Your task to perform on an android device: Open sound settings Image 0: 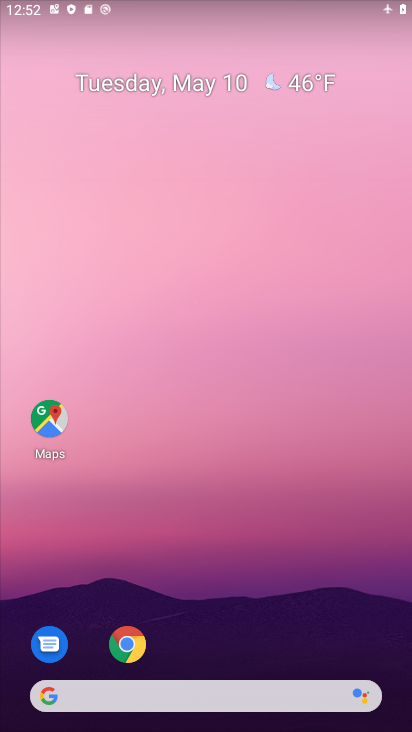
Step 0: drag from (236, 578) to (235, 314)
Your task to perform on an android device: Open sound settings Image 1: 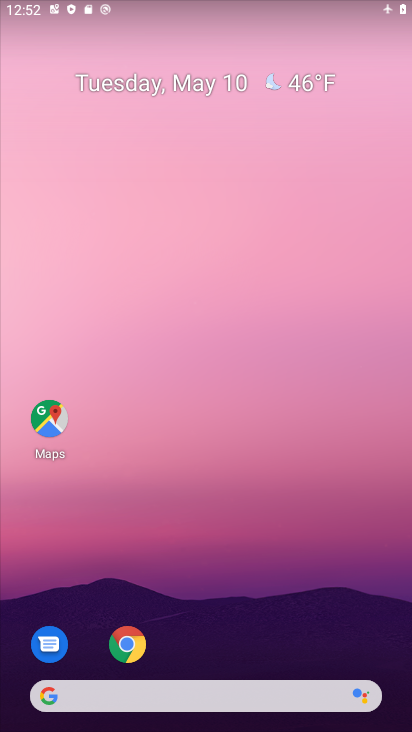
Step 1: click (207, 282)
Your task to perform on an android device: Open sound settings Image 2: 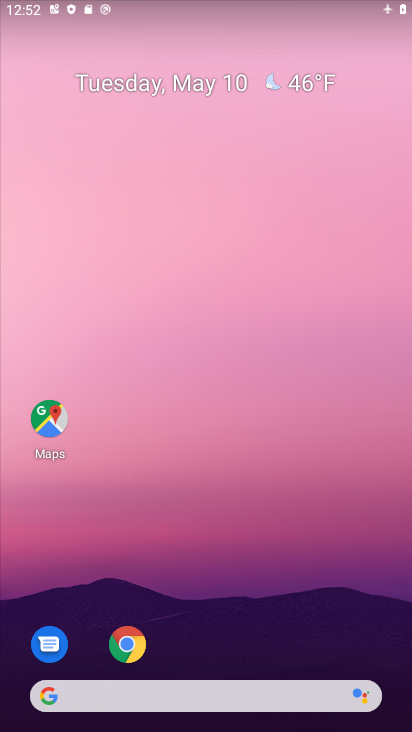
Step 2: drag from (200, 633) to (181, 248)
Your task to perform on an android device: Open sound settings Image 3: 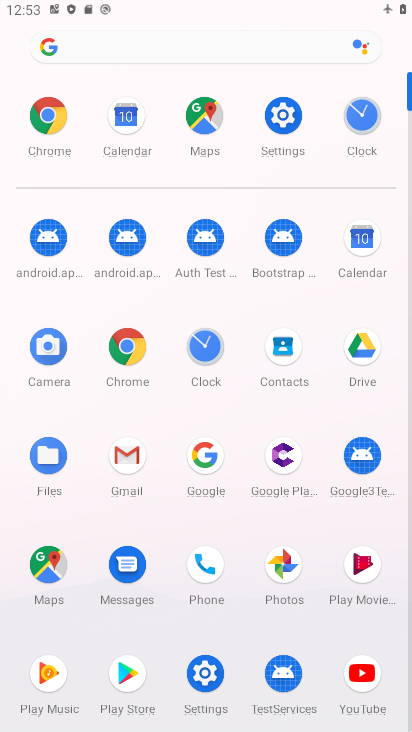
Step 3: click (287, 141)
Your task to perform on an android device: Open sound settings Image 4: 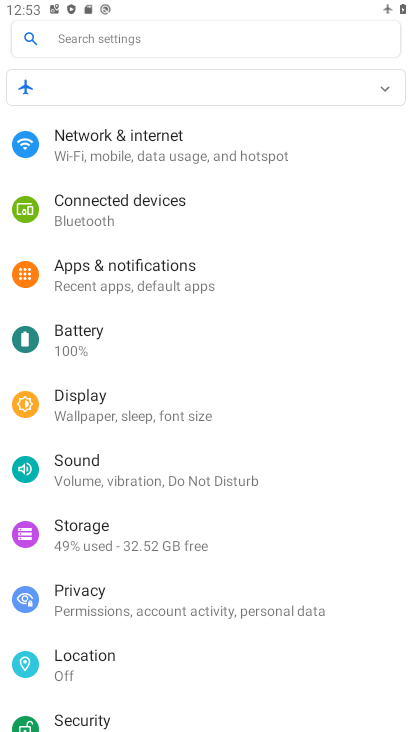
Step 4: click (121, 475)
Your task to perform on an android device: Open sound settings Image 5: 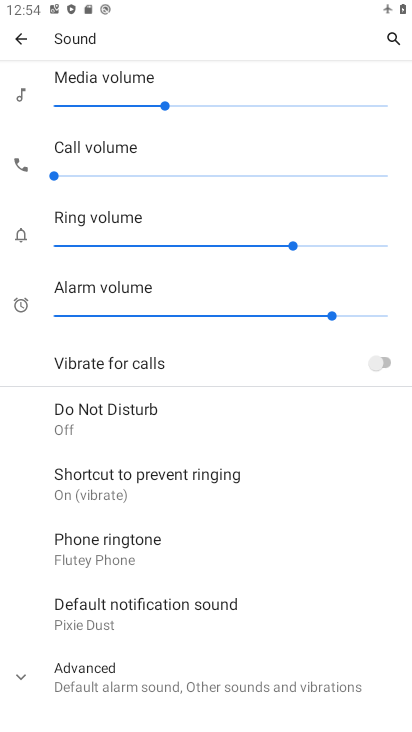
Step 5: task complete